Your task to perform on an android device: Add "macbook air" to the cart on bestbuy, then select checkout. Image 0: 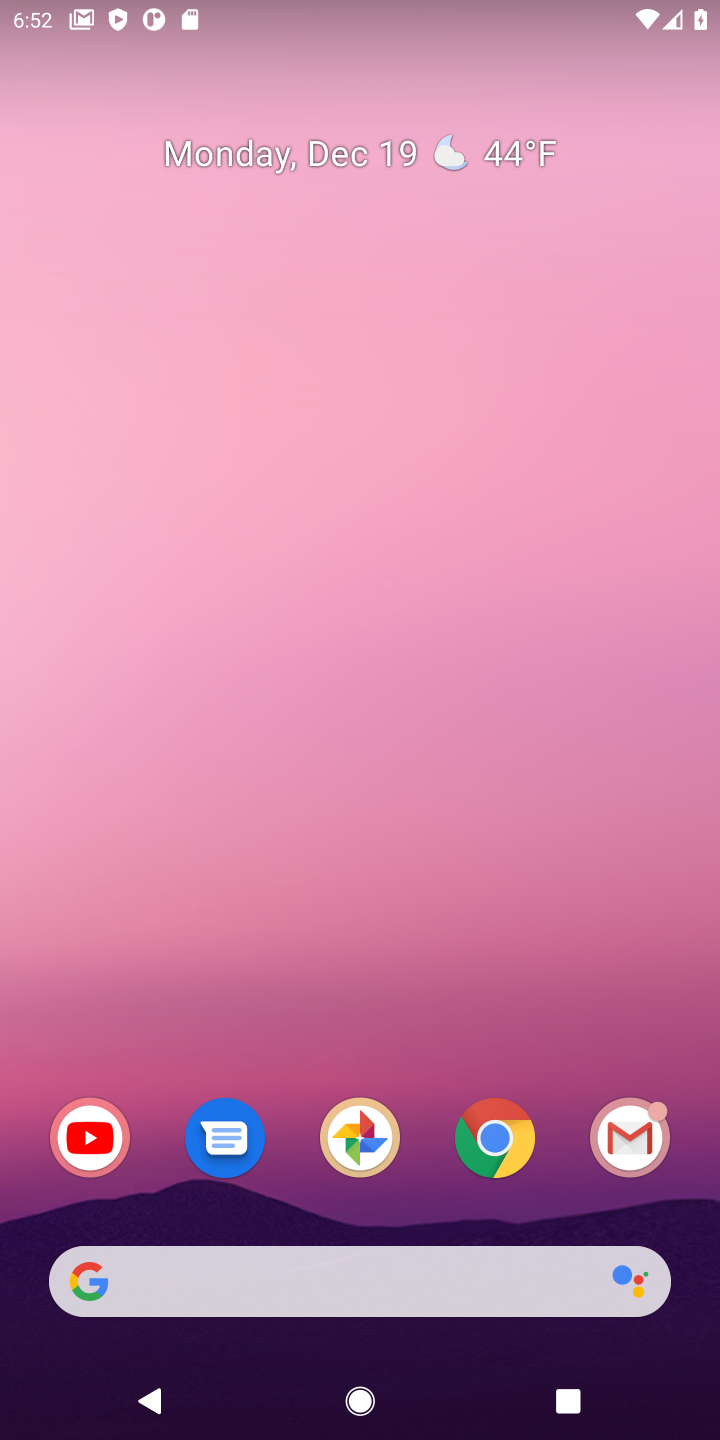
Step 0: task complete